Your task to perform on an android device: turn off sleep mode Image 0: 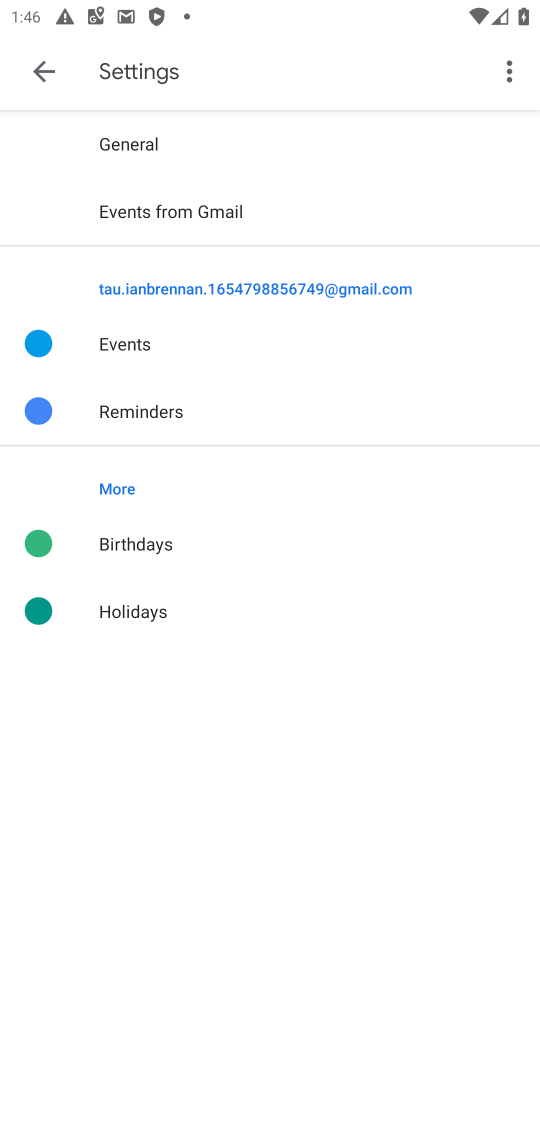
Step 0: press home button
Your task to perform on an android device: turn off sleep mode Image 1: 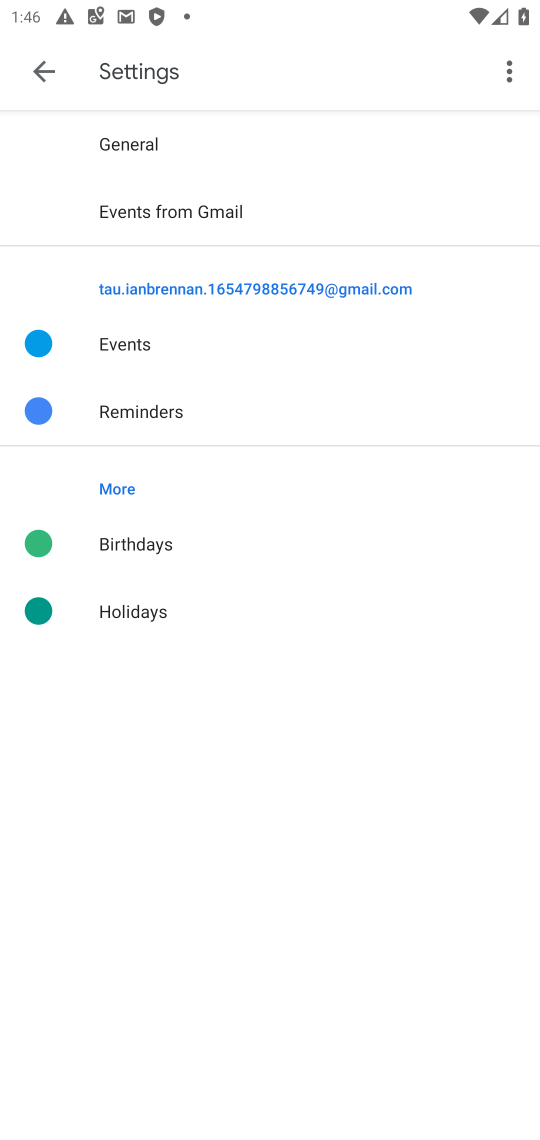
Step 1: press home button
Your task to perform on an android device: turn off sleep mode Image 2: 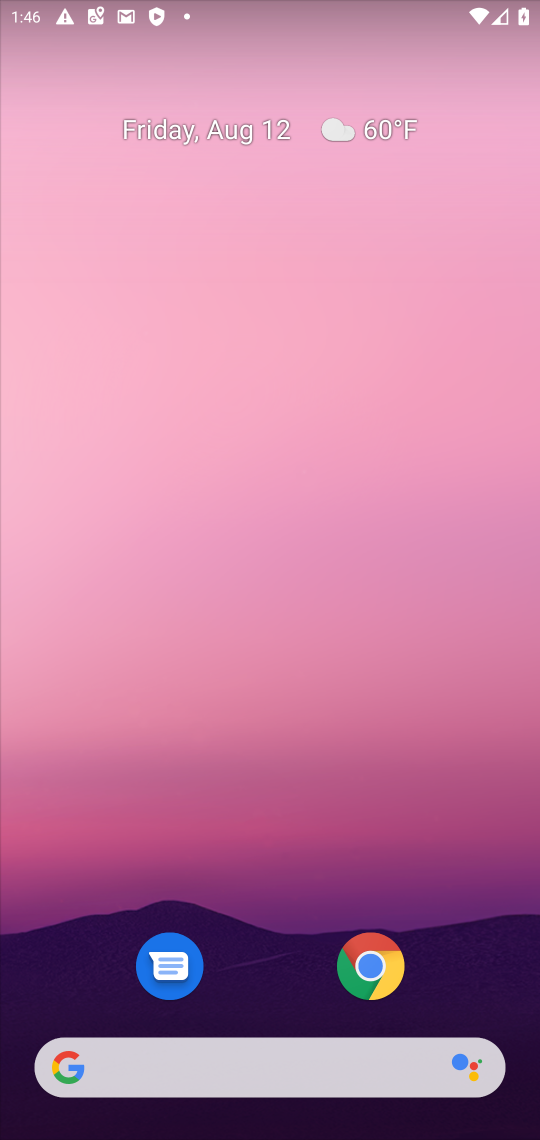
Step 2: drag from (292, 223) to (315, 53)
Your task to perform on an android device: turn off sleep mode Image 3: 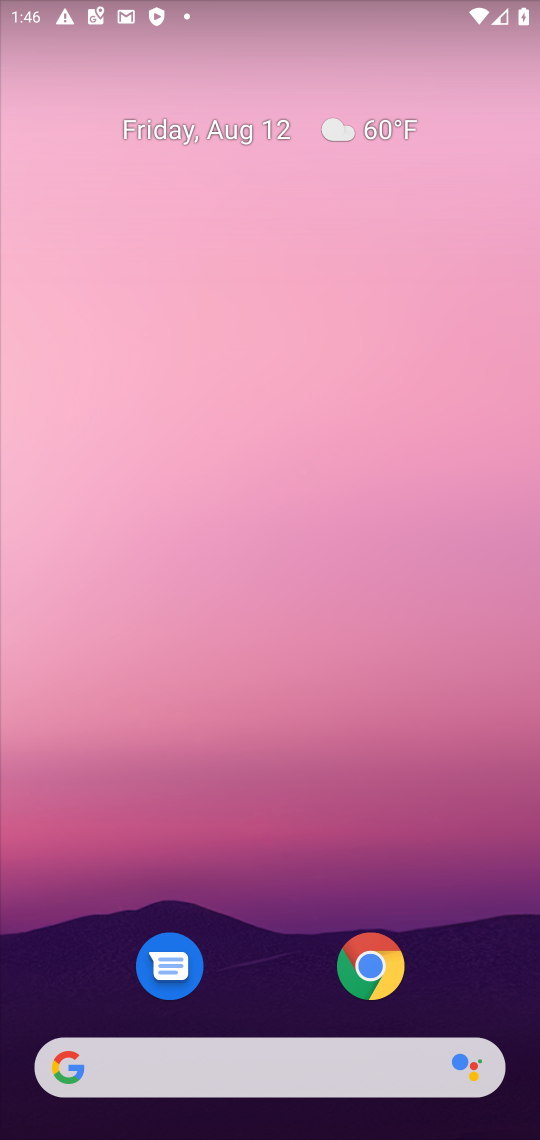
Step 3: drag from (255, 916) to (328, 52)
Your task to perform on an android device: turn off sleep mode Image 4: 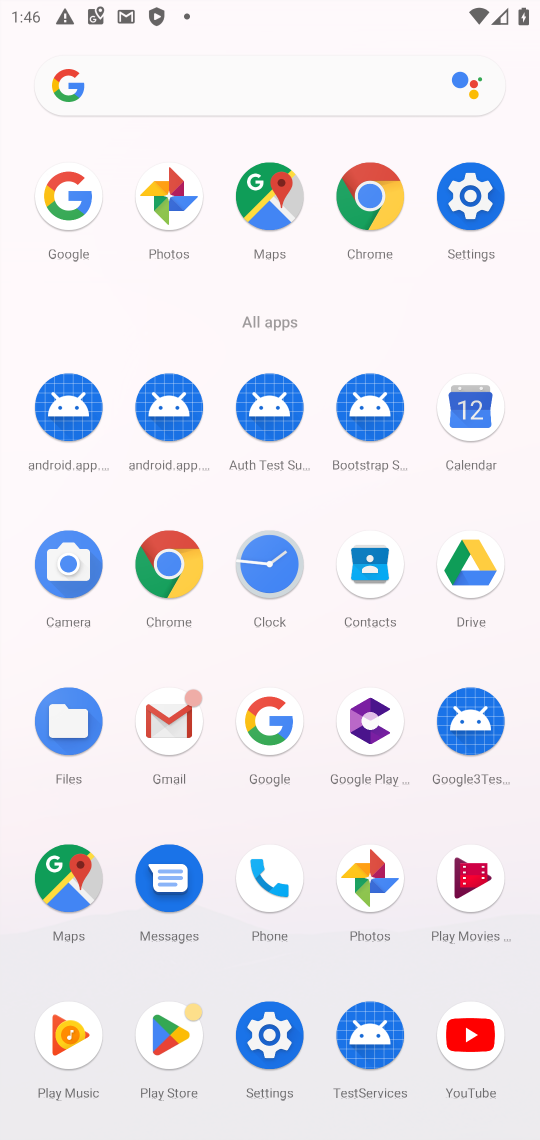
Step 4: click (283, 1033)
Your task to perform on an android device: turn off sleep mode Image 5: 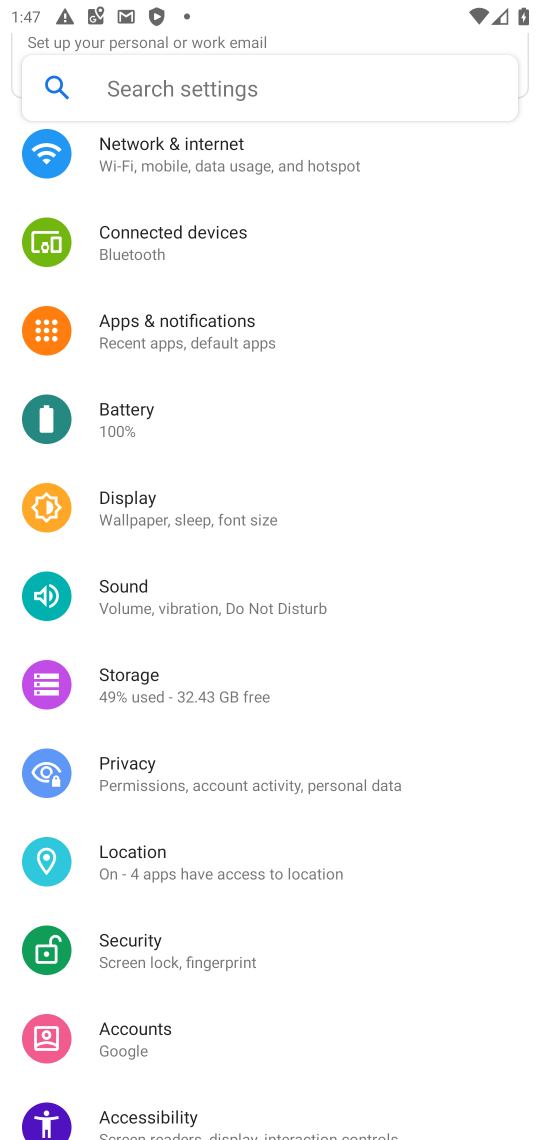
Step 5: click (237, 501)
Your task to perform on an android device: turn off sleep mode Image 6: 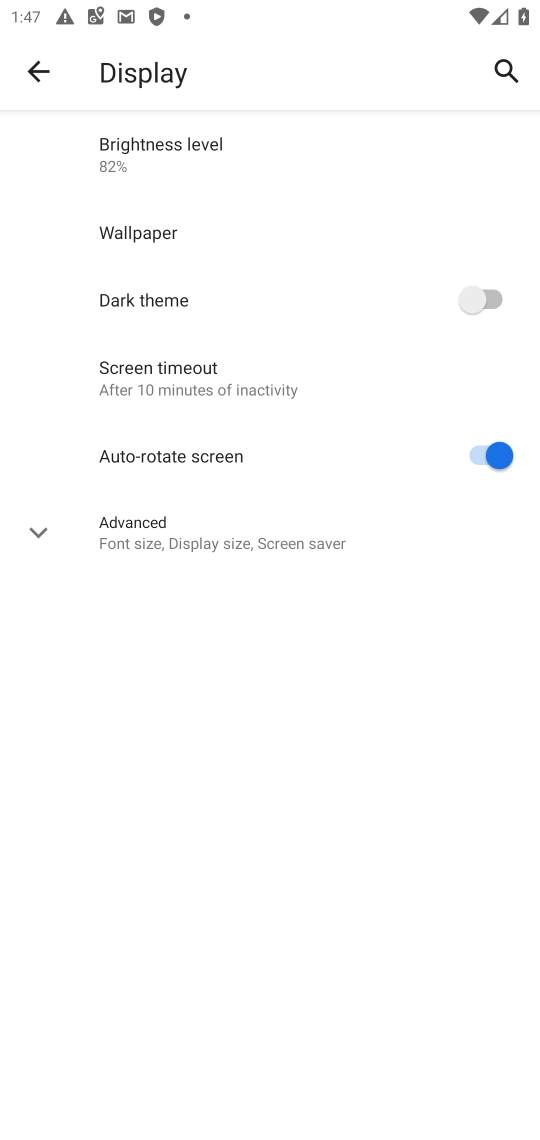
Step 6: click (237, 398)
Your task to perform on an android device: turn off sleep mode Image 7: 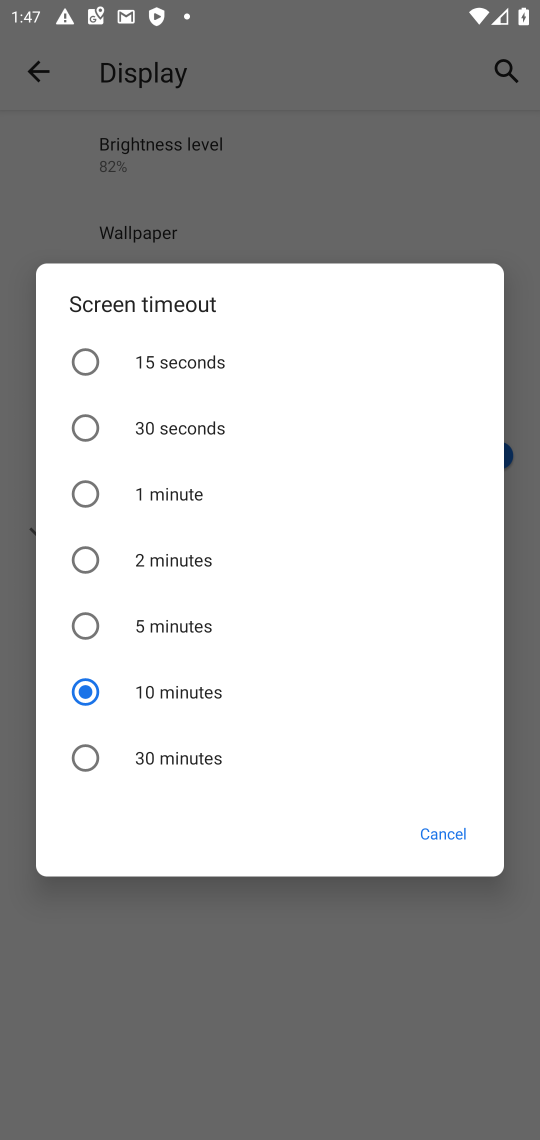
Step 7: task complete